Your task to perform on an android device: Clear all items from cart on target.com. Add "macbook air" to the cart on target.com Image 0: 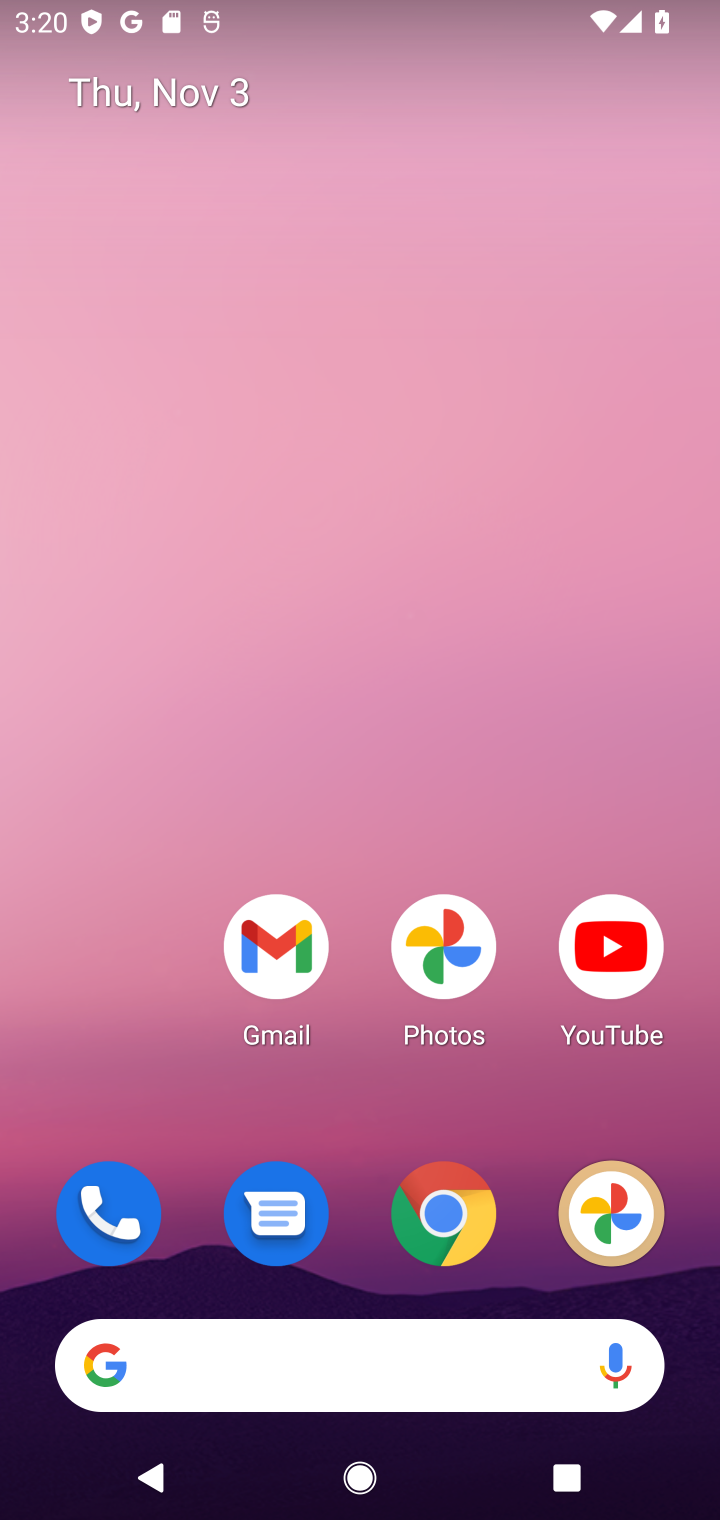
Step 0: click (469, 1221)
Your task to perform on an android device: Clear all items from cart on target.com. Add "macbook air" to the cart on target.com Image 1: 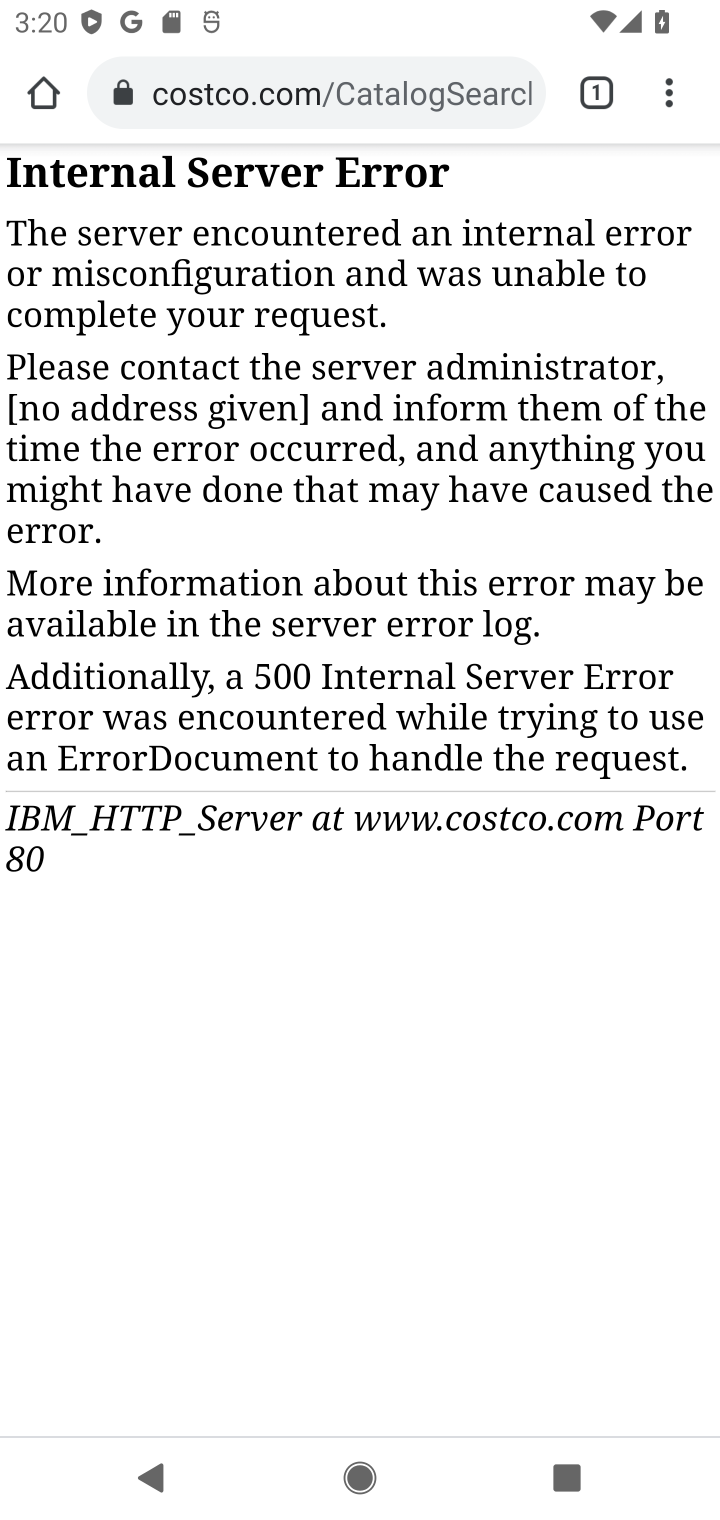
Step 1: click (300, 93)
Your task to perform on an android device: Clear all items from cart on target.com. Add "macbook air" to the cart on target.com Image 2: 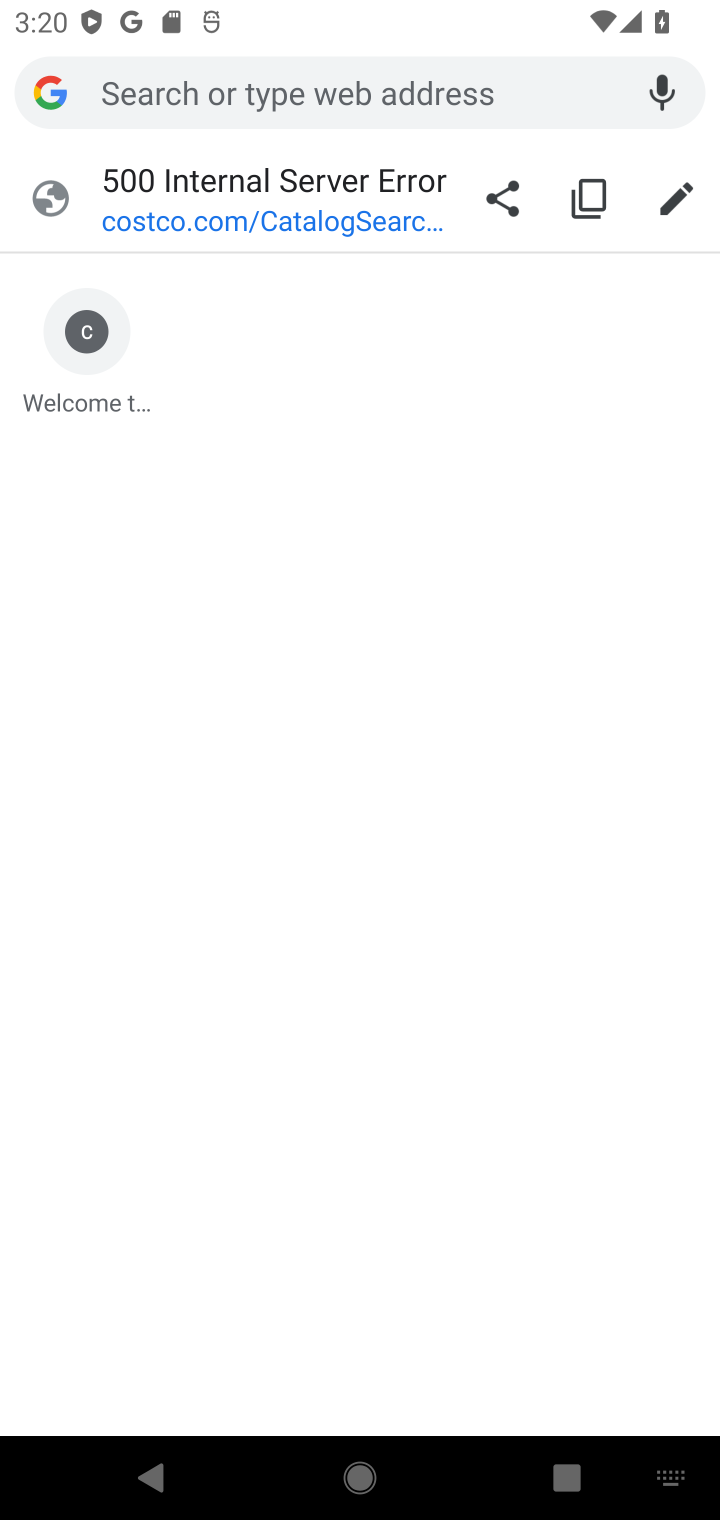
Step 2: type "target.com"
Your task to perform on an android device: Clear all items from cart on target.com. Add "macbook air" to the cart on target.com Image 3: 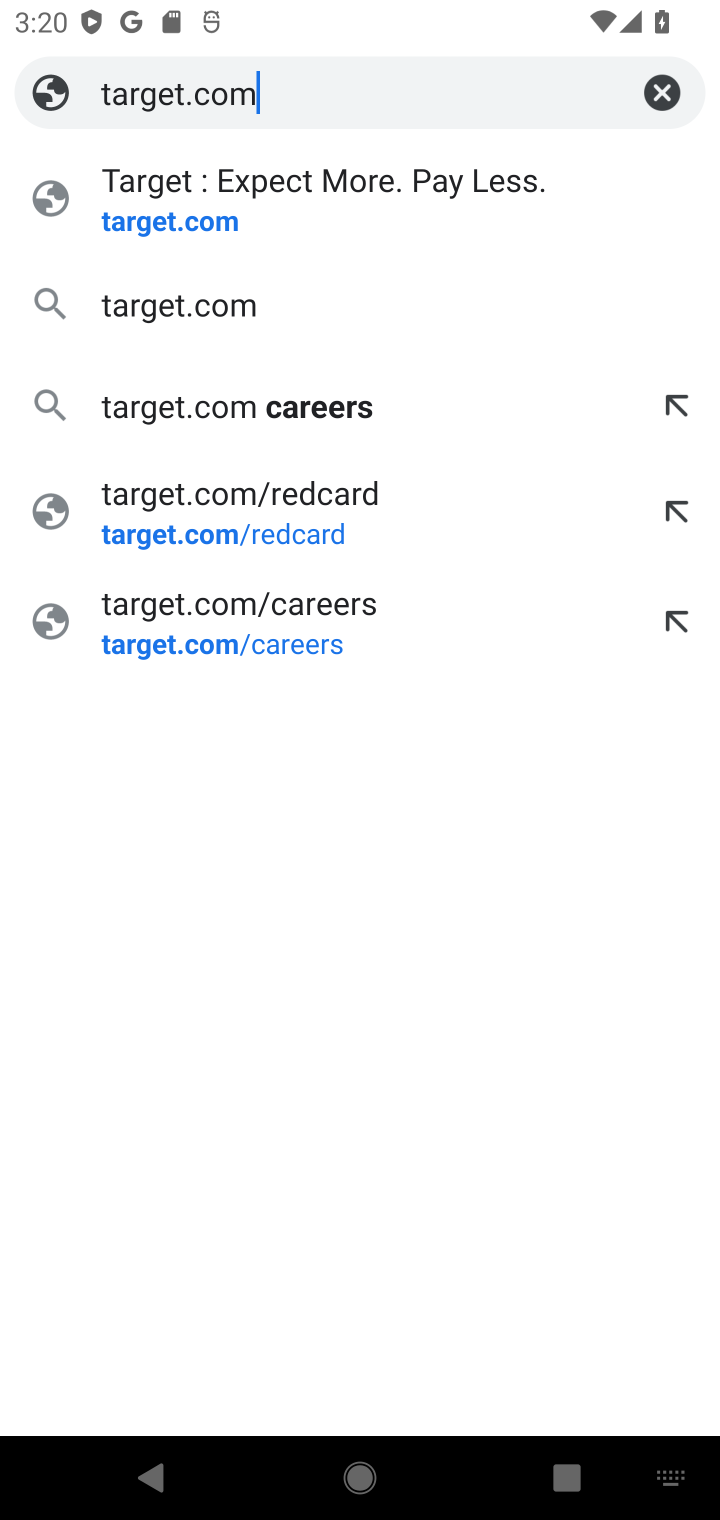
Step 3: click (185, 230)
Your task to perform on an android device: Clear all items from cart on target.com. Add "macbook air" to the cart on target.com Image 4: 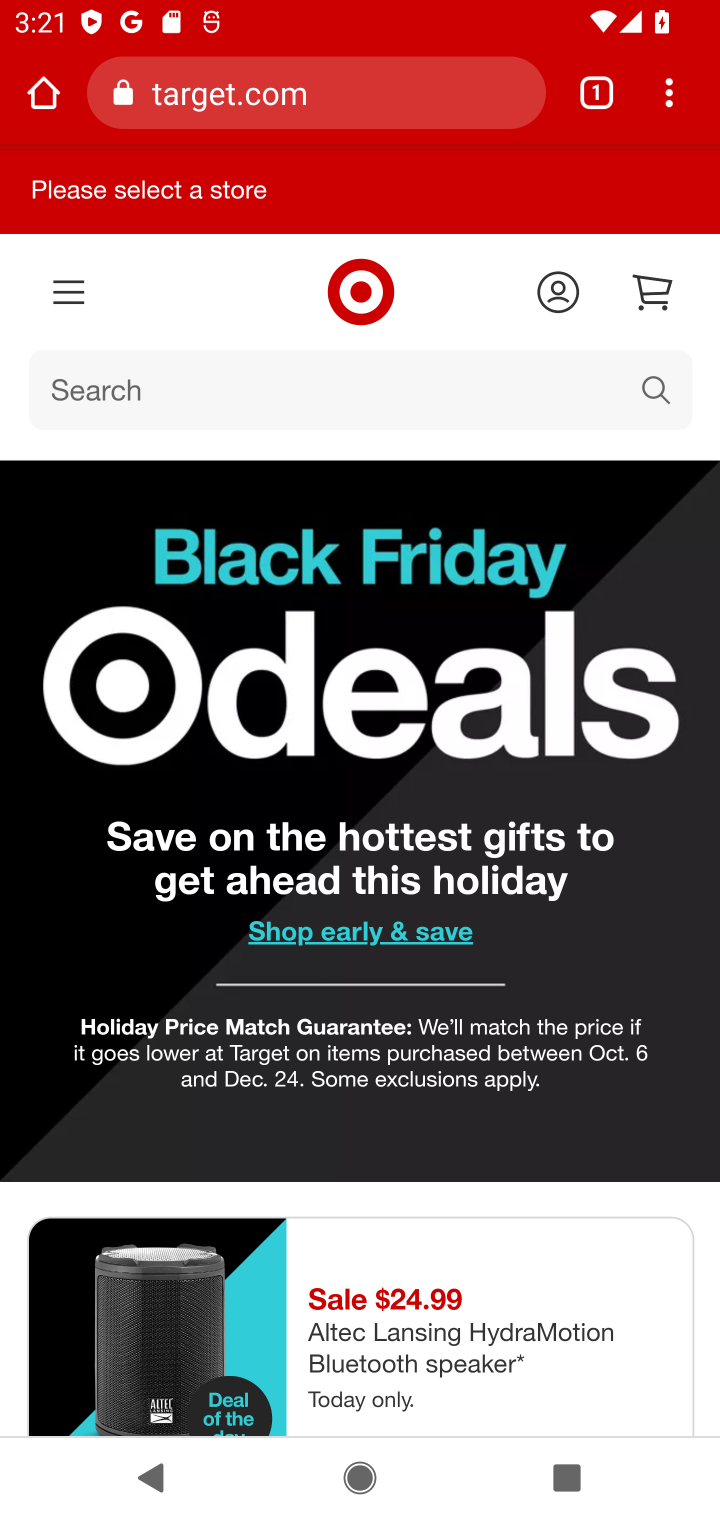
Step 4: click (490, 402)
Your task to perform on an android device: Clear all items from cart on target.com. Add "macbook air" to the cart on target.com Image 5: 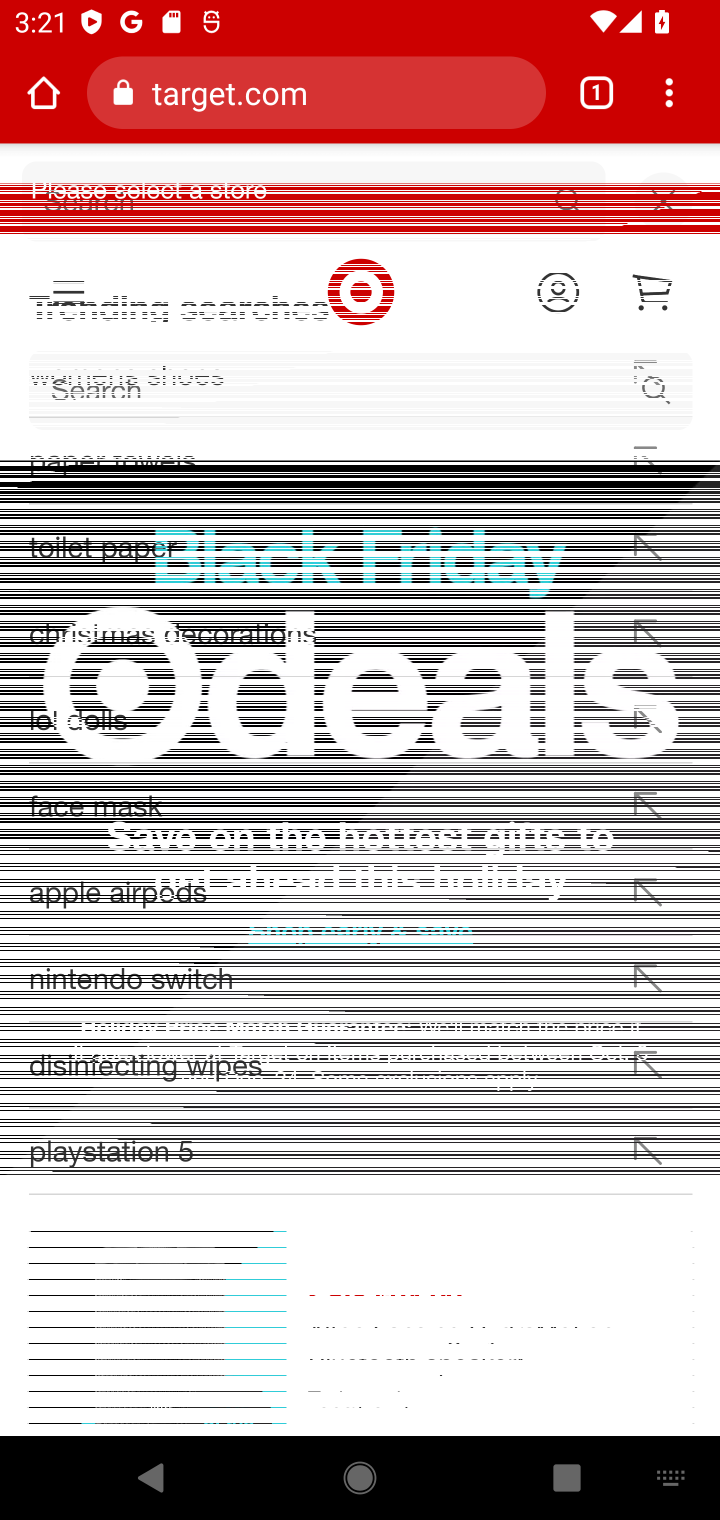
Step 5: type "macbook air"
Your task to perform on an android device: Clear all items from cart on target.com. Add "macbook air" to the cart on target.com Image 6: 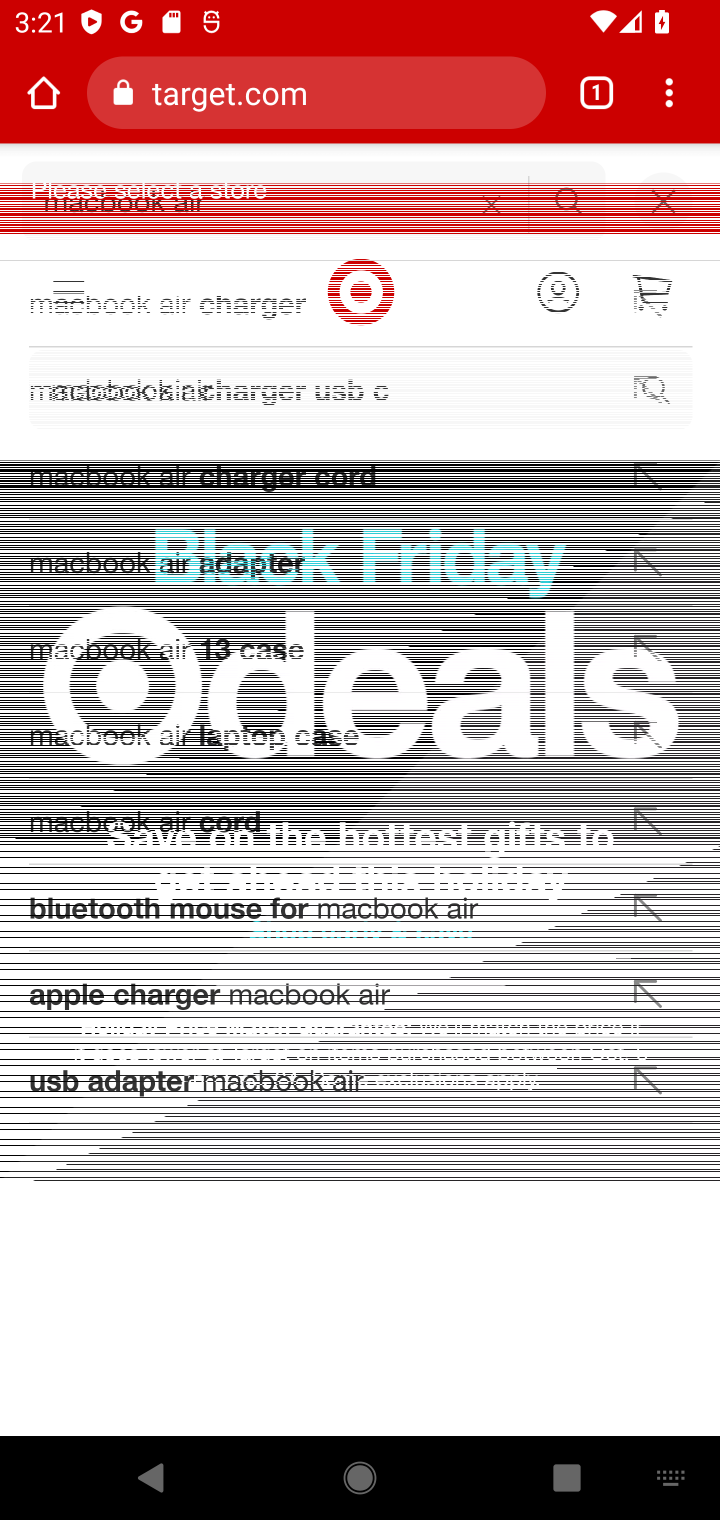
Step 6: click (561, 206)
Your task to perform on an android device: Clear all items from cart on target.com. Add "macbook air" to the cart on target.com Image 7: 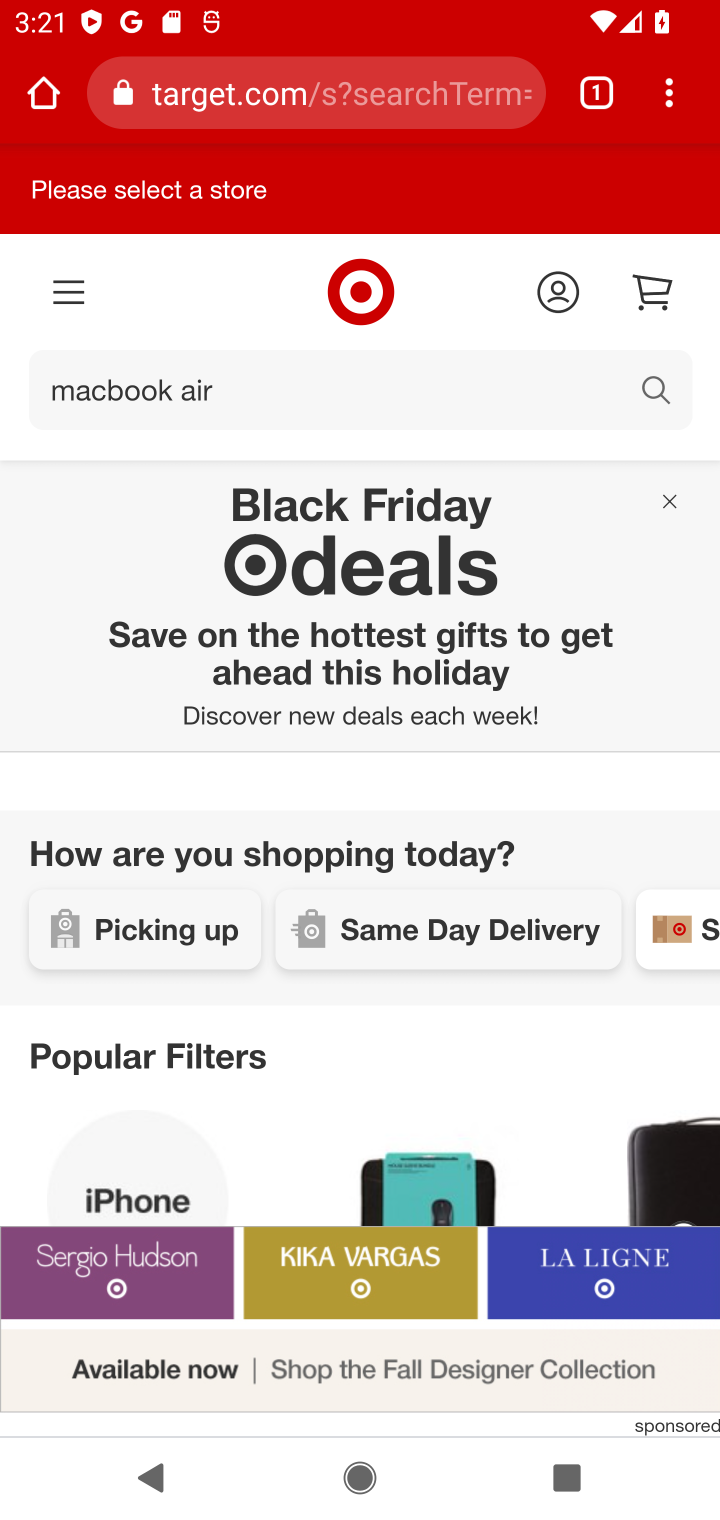
Step 7: click (658, 300)
Your task to perform on an android device: Clear all items from cart on target.com. Add "macbook air" to the cart on target.com Image 8: 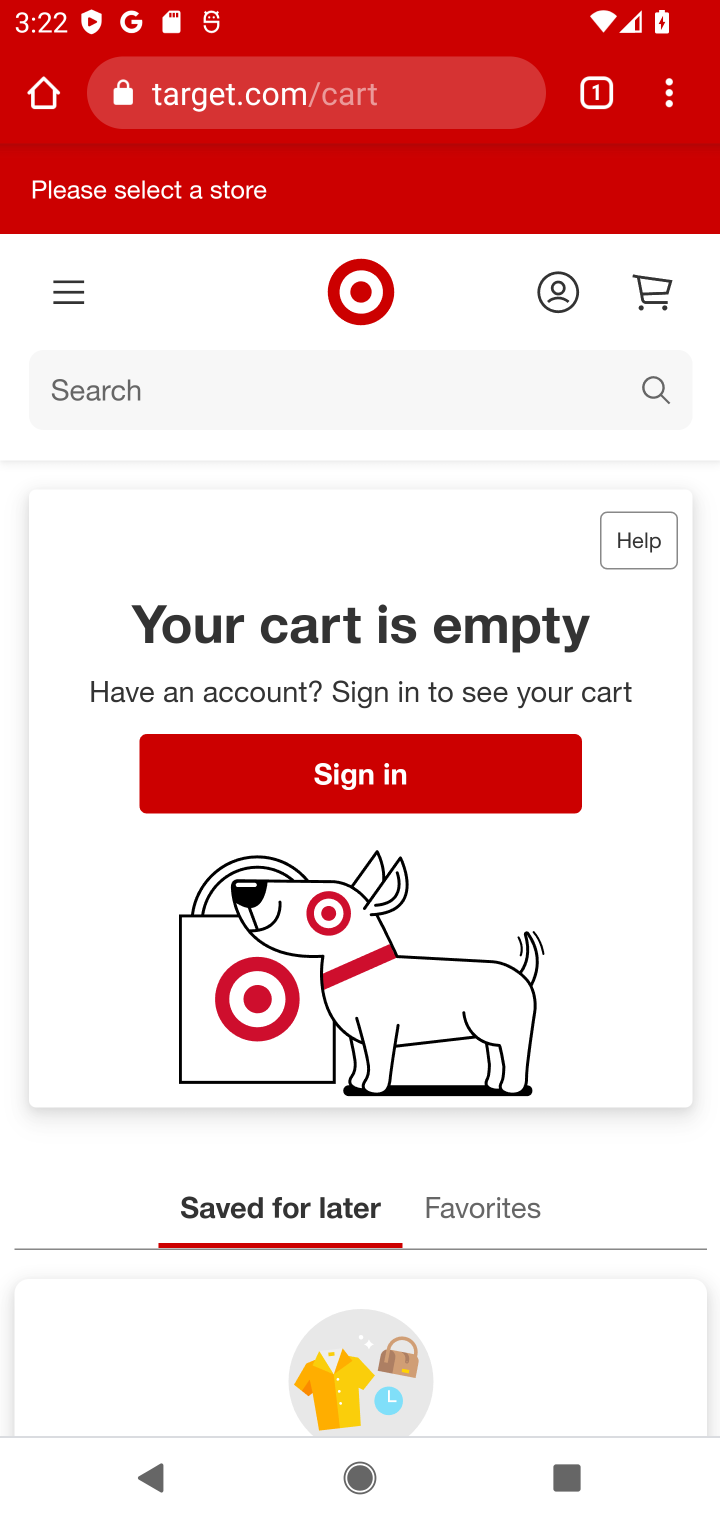
Step 8: press back button
Your task to perform on an android device: Clear all items from cart on target.com. Add "macbook air" to the cart on target.com Image 9: 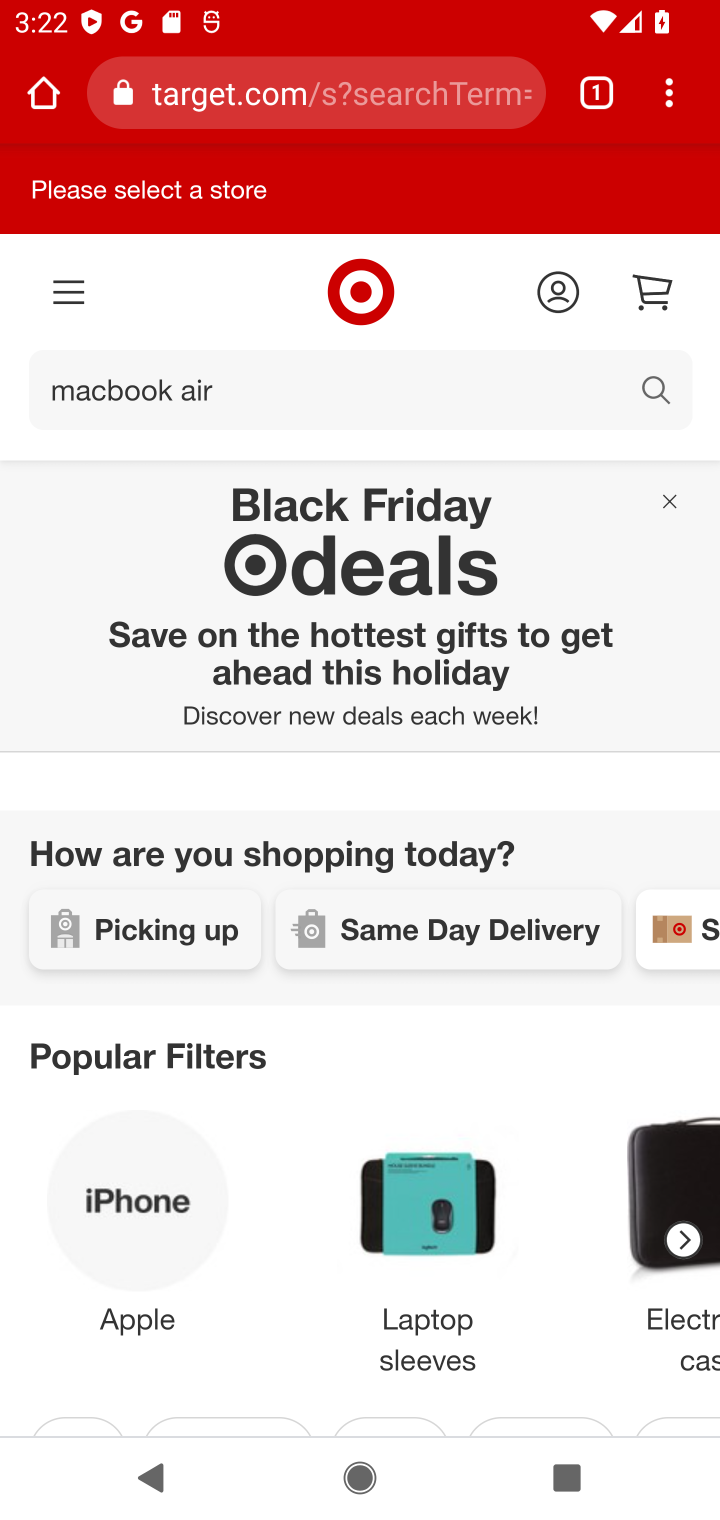
Step 9: drag from (342, 1027) to (399, 504)
Your task to perform on an android device: Clear all items from cart on target.com. Add "macbook air" to the cart on target.com Image 10: 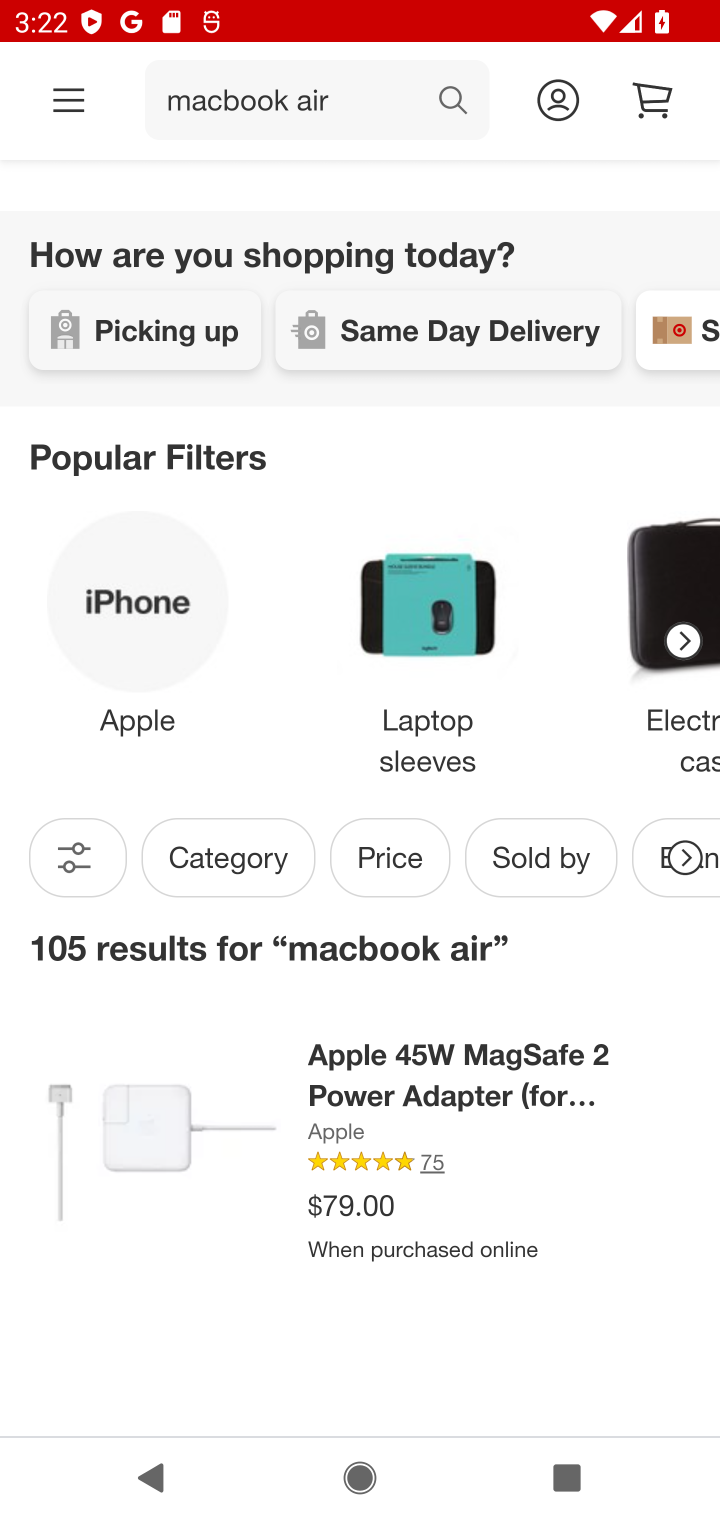
Step 10: drag from (399, 1011) to (412, 835)
Your task to perform on an android device: Clear all items from cart on target.com. Add "macbook air" to the cart on target.com Image 11: 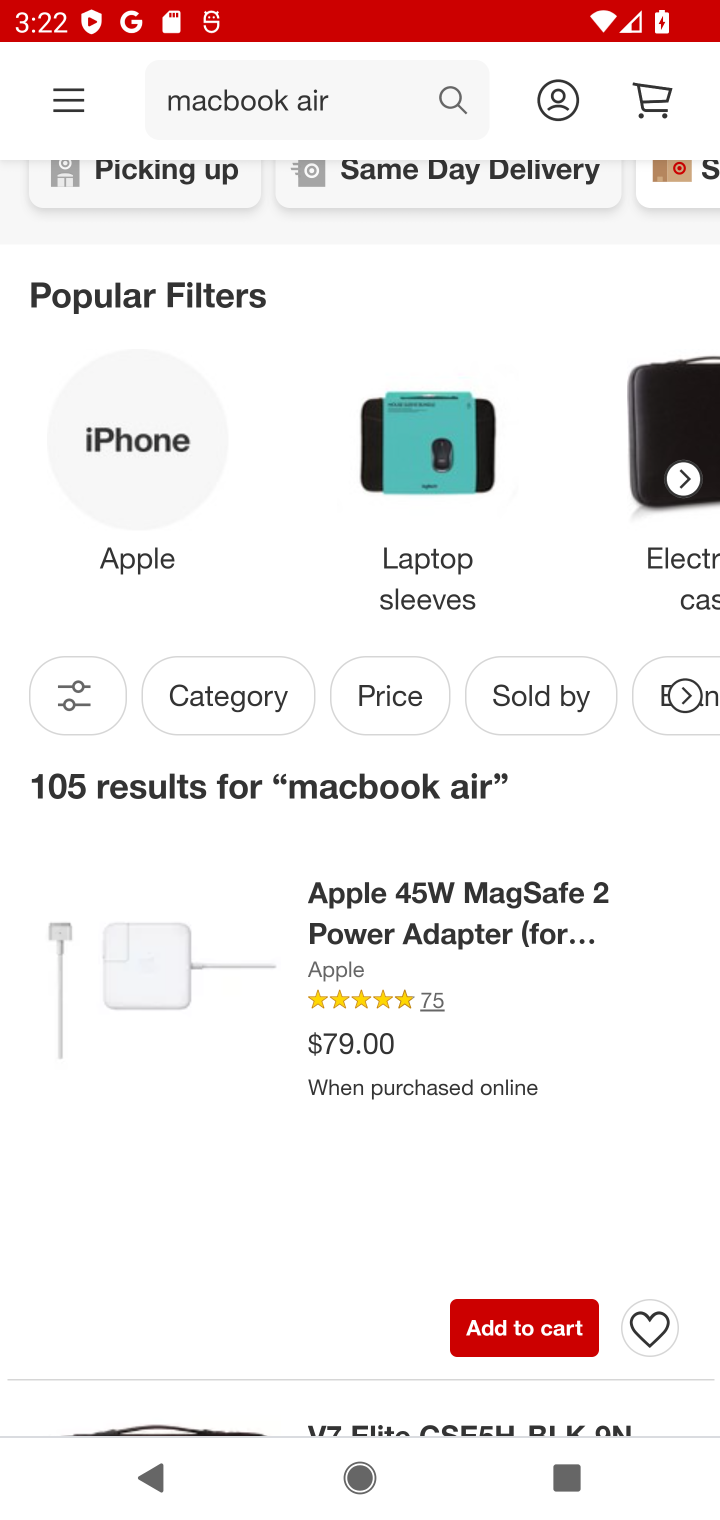
Step 11: drag from (400, 1284) to (392, 835)
Your task to perform on an android device: Clear all items from cart on target.com. Add "macbook air" to the cart on target.com Image 12: 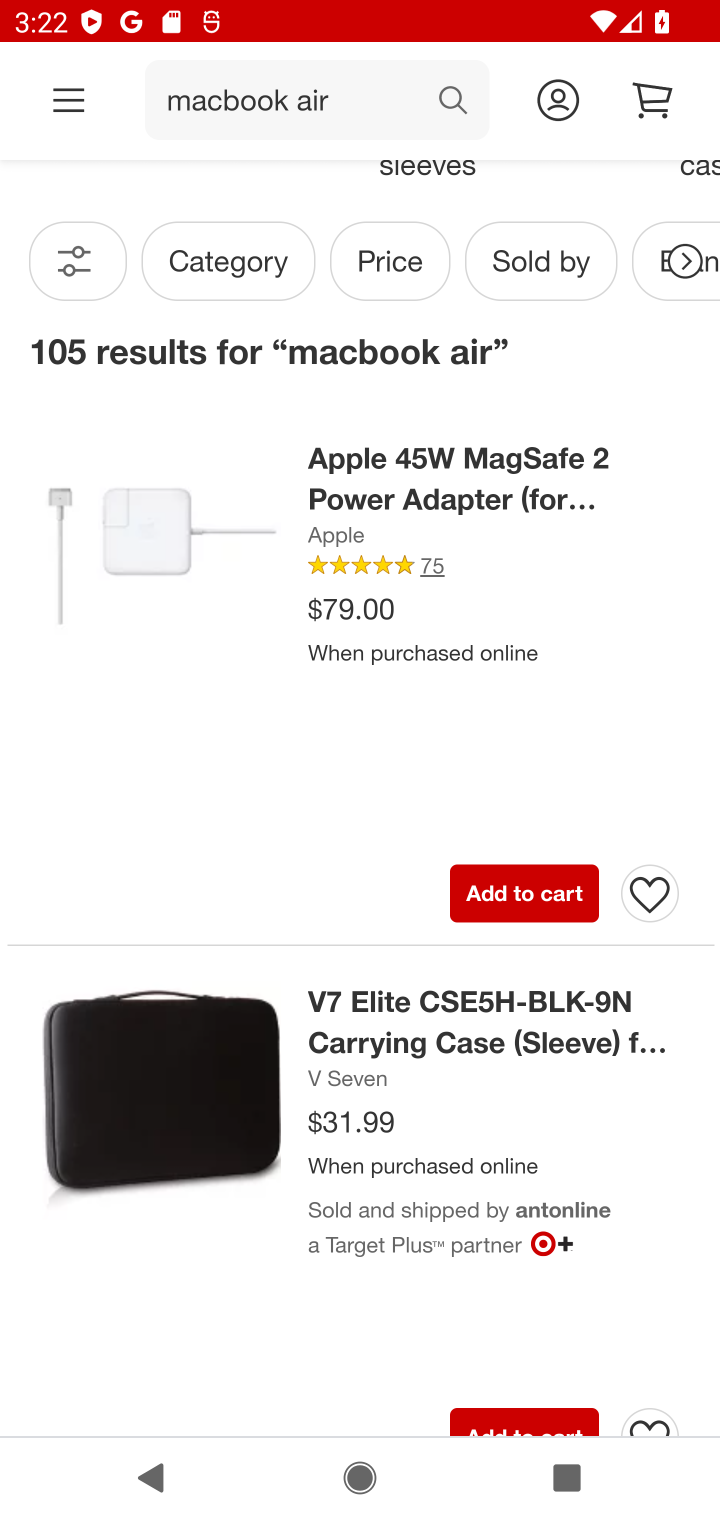
Step 12: drag from (391, 841) to (370, 1468)
Your task to perform on an android device: Clear all items from cart on target.com. Add "macbook air" to the cart on target.com Image 13: 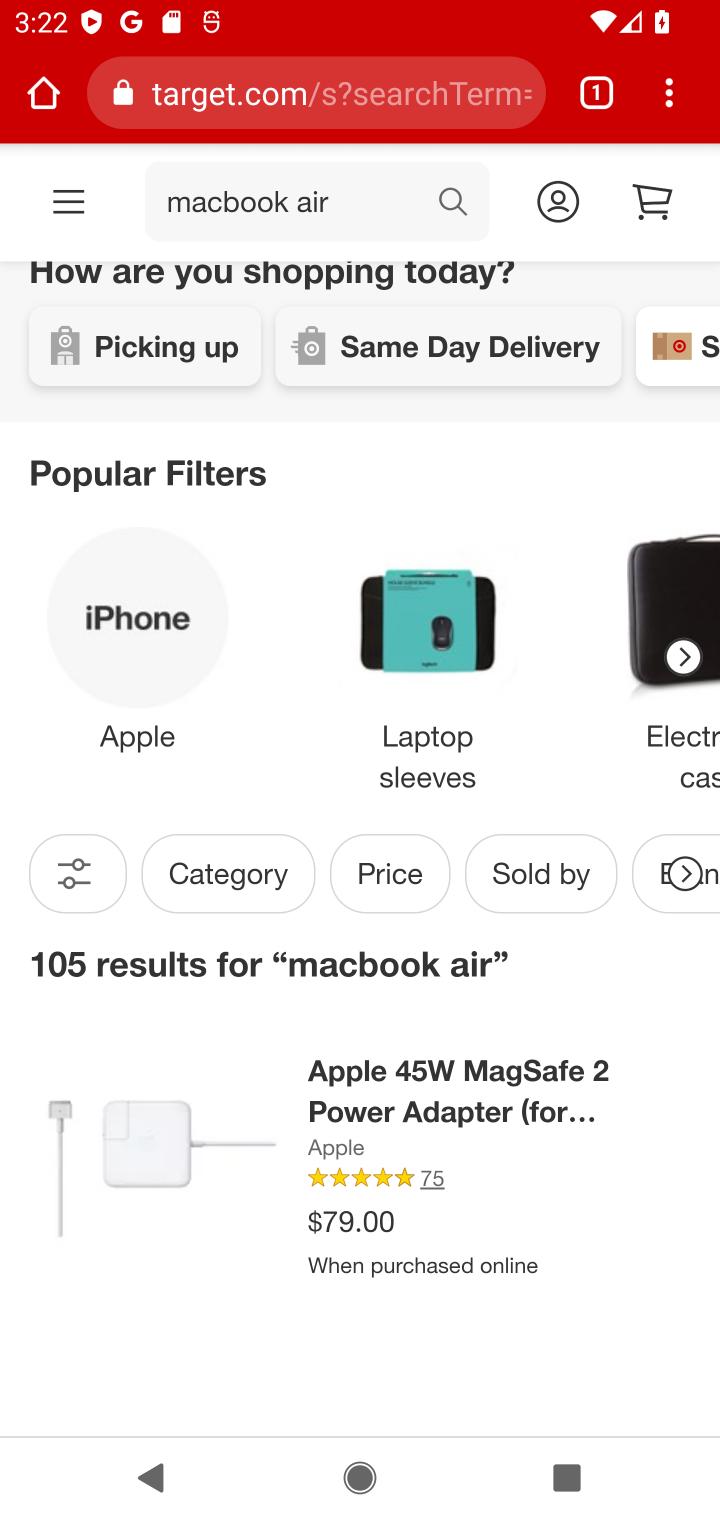
Step 13: drag from (360, 681) to (360, 1235)
Your task to perform on an android device: Clear all items from cart on target.com. Add "macbook air" to the cart on target.com Image 14: 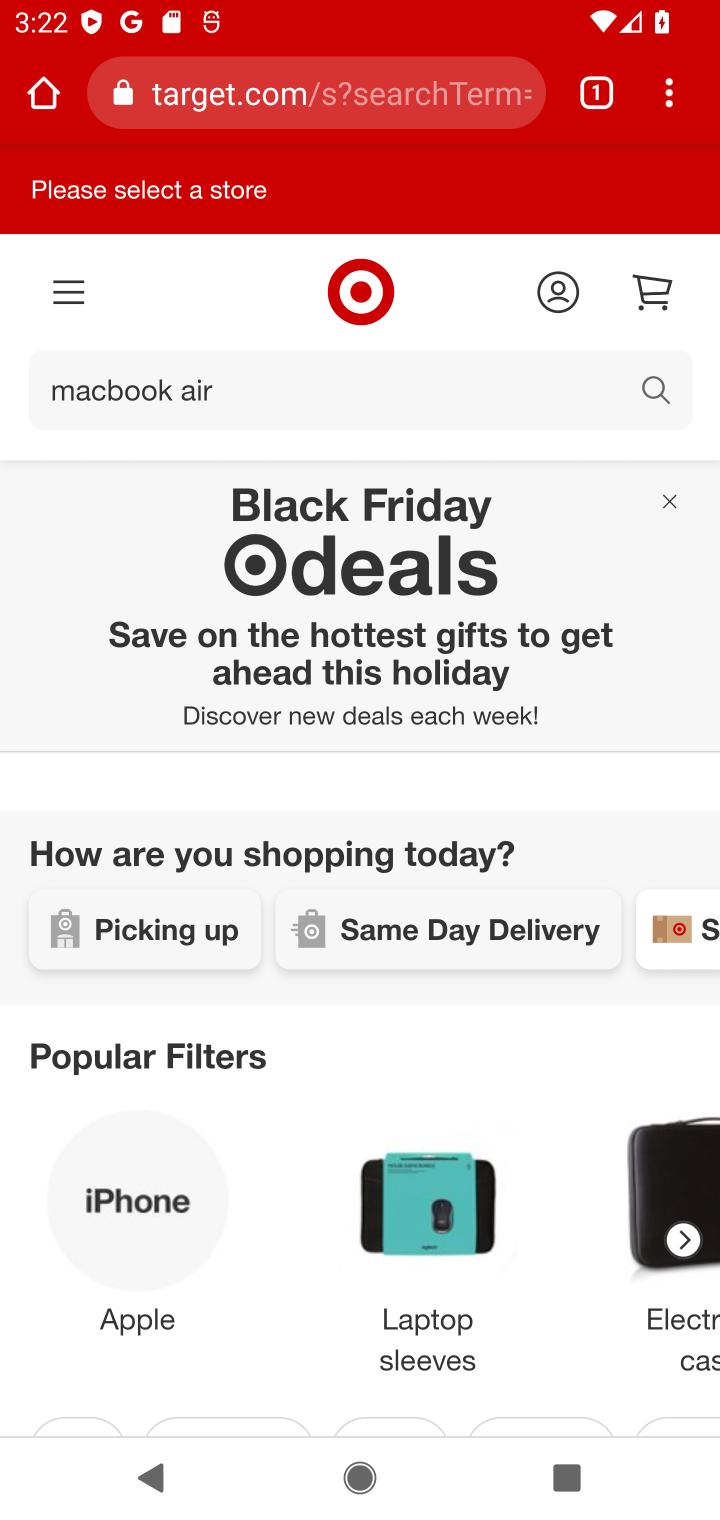
Step 14: click (646, 394)
Your task to perform on an android device: Clear all items from cart on target.com. Add "macbook air" to the cart on target.com Image 15: 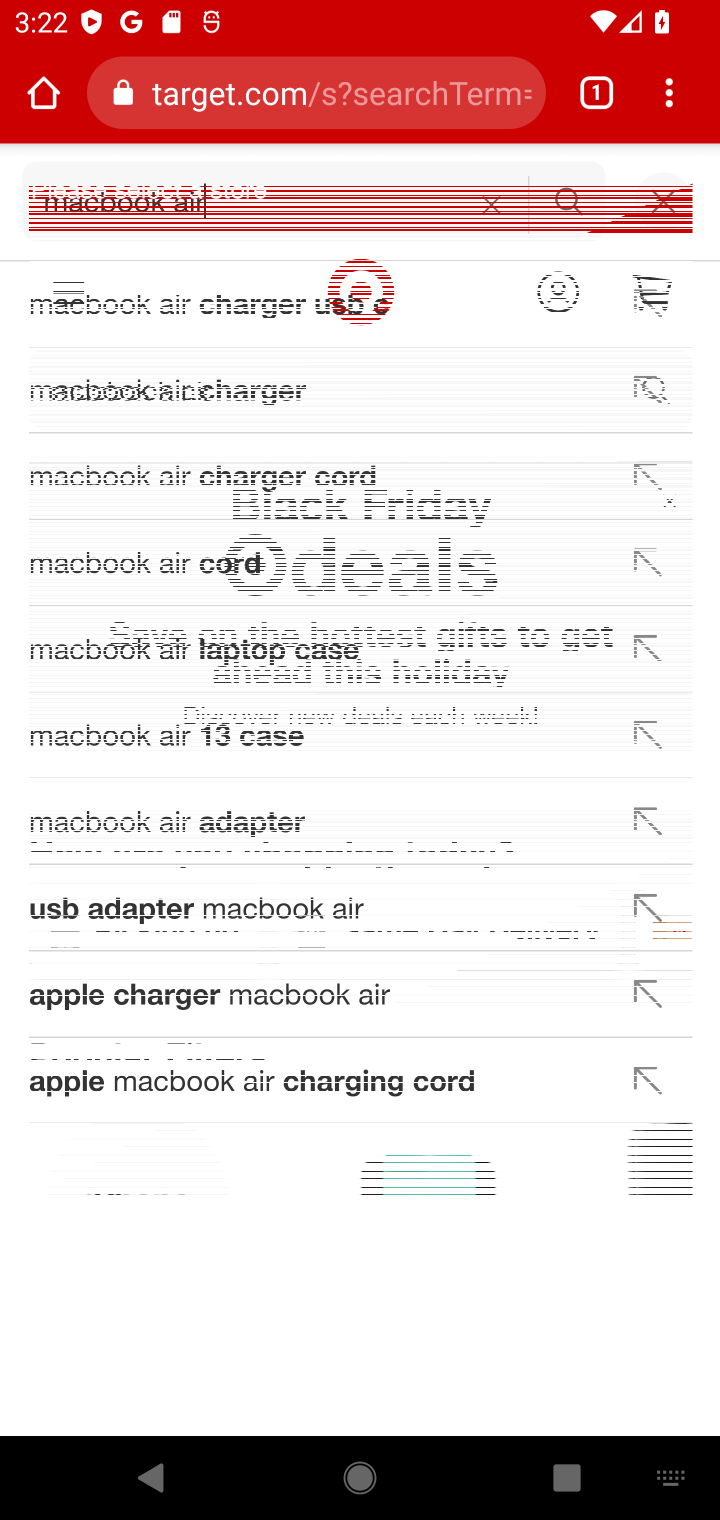
Step 15: click (556, 194)
Your task to perform on an android device: Clear all items from cart on target.com. Add "macbook air" to the cart on target.com Image 16: 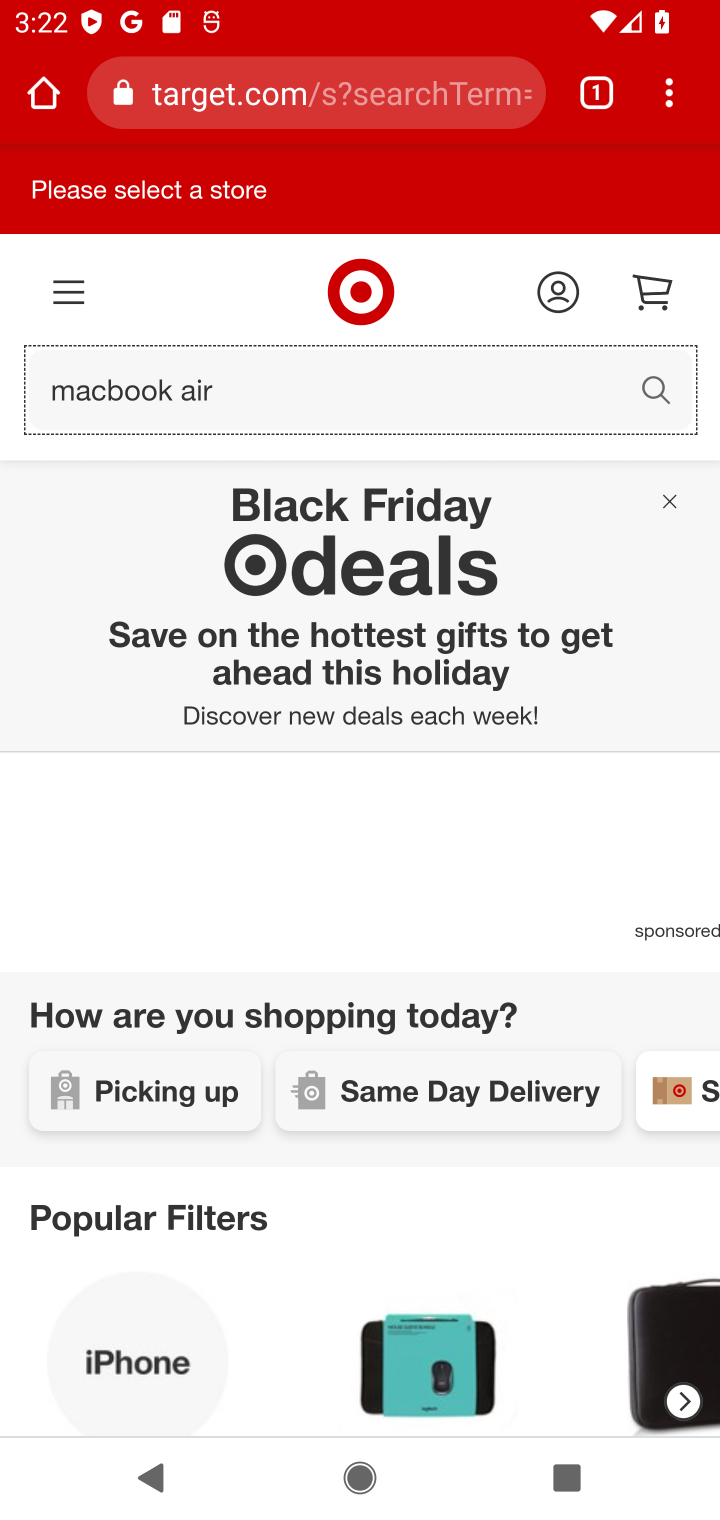
Step 16: task complete